Your task to perform on an android device: turn smart compose on in the gmail app Image 0: 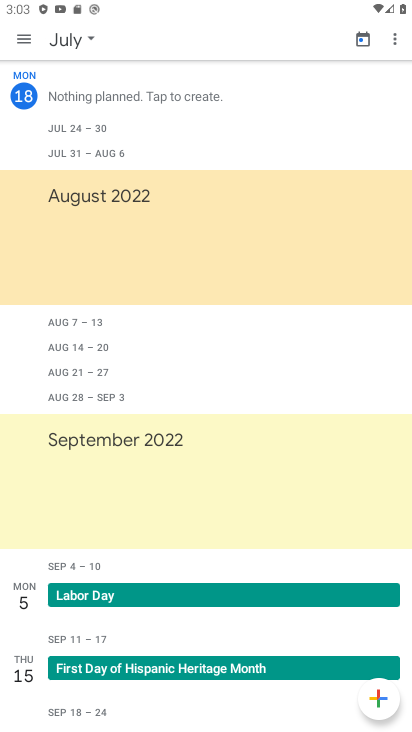
Step 0: press home button
Your task to perform on an android device: turn smart compose on in the gmail app Image 1: 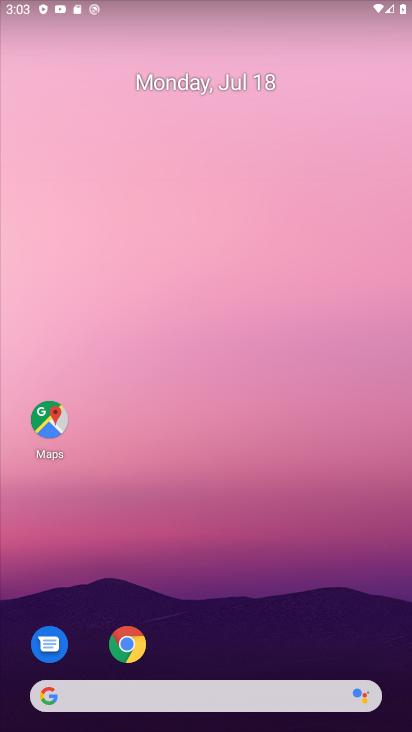
Step 1: drag from (388, 655) to (331, 134)
Your task to perform on an android device: turn smart compose on in the gmail app Image 2: 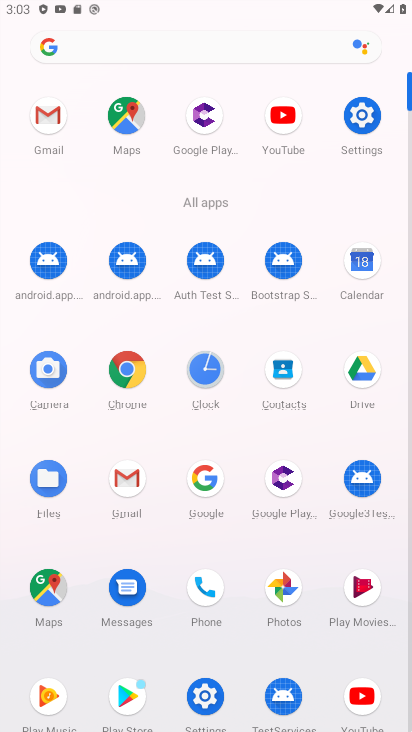
Step 2: click (126, 477)
Your task to perform on an android device: turn smart compose on in the gmail app Image 3: 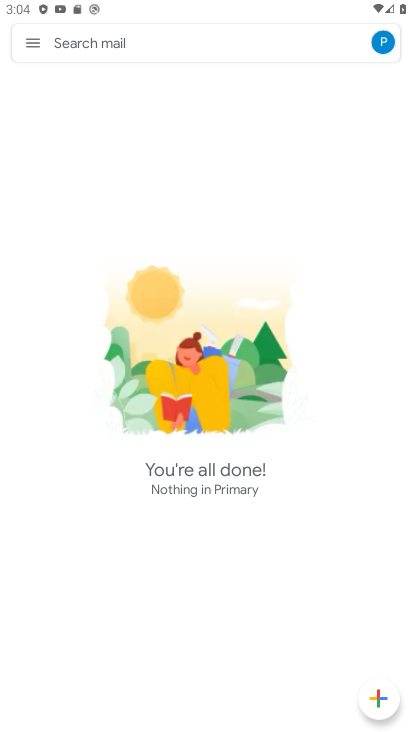
Step 3: click (28, 45)
Your task to perform on an android device: turn smart compose on in the gmail app Image 4: 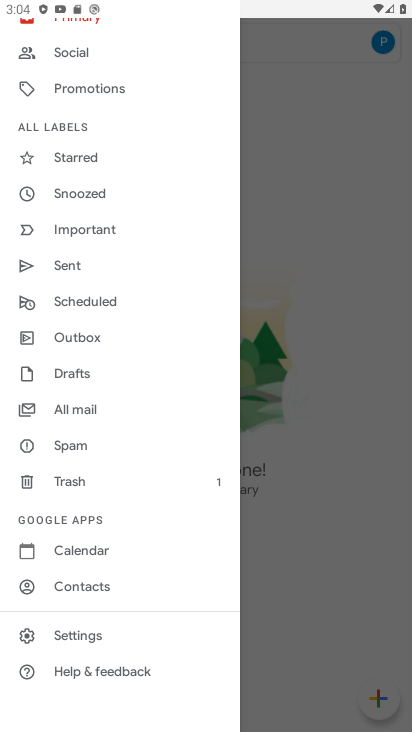
Step 4: click (89, 636)
Your task to perform on an android device: turn smart compose on in the gmail app Image 5: 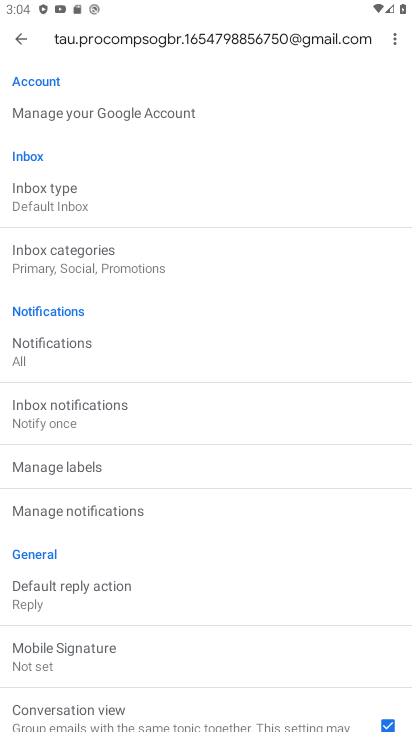
Step 5: task complete